Your task to perform on an android device: turn off location history Image 0: 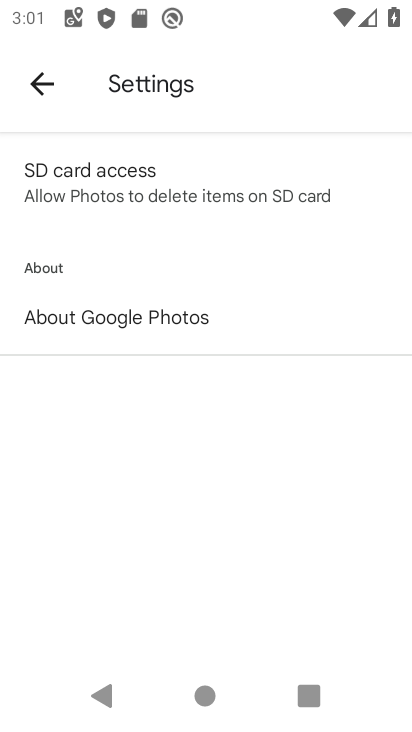
Step 0: press home button
Your task to perform on an android device: turn off location history Image 1: 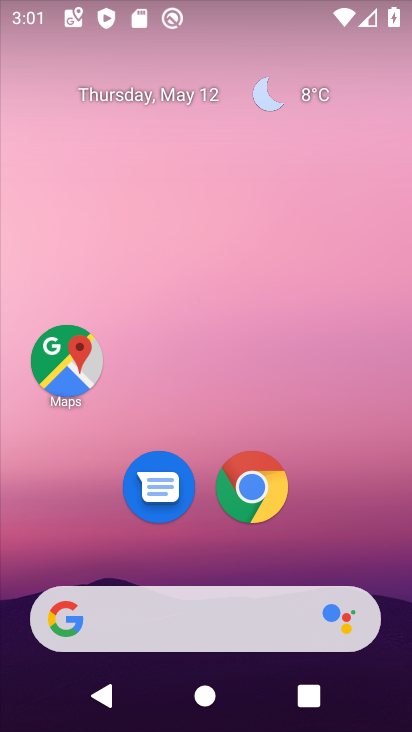
Step 1: drag from (323, 480) to (286, 6)
Your task to perform on an android device: turn off location history Image 2: 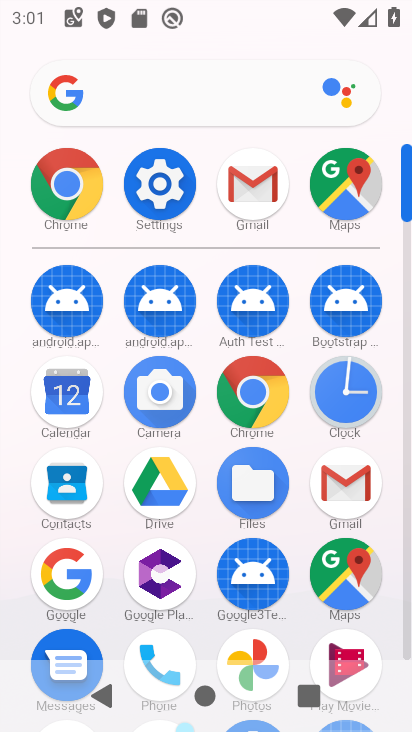
Step 2: click (174, 184)
Your task to perform on an android device: turn off location history Image 3: 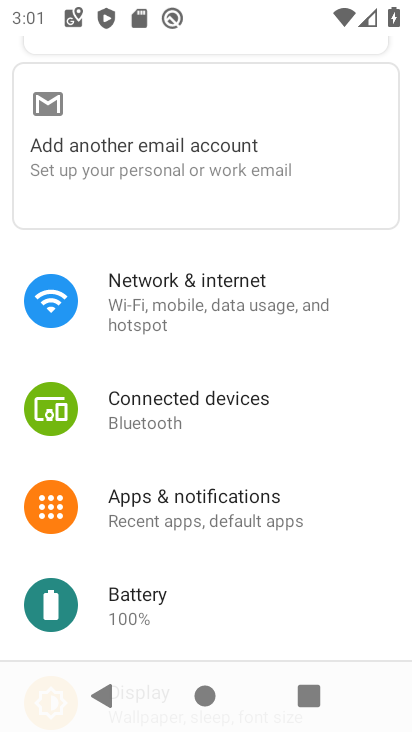
Step 3: drag from (230, 556) to (328, 0)
Your task to perform on an android device: turn off location history Image 4: 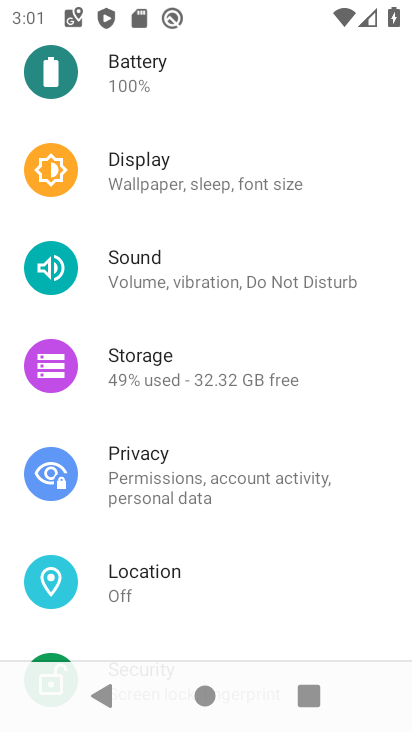
Step 4: click (149, 579)
Your task to perform on an android device: turn off location history Image 5: 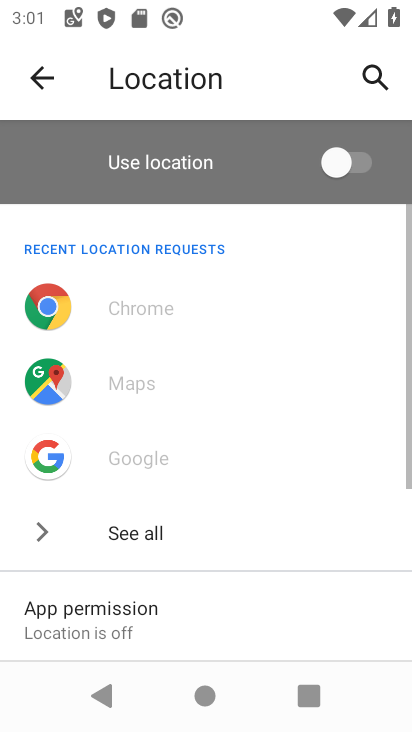
Step 5: drag from (161, 572) to (277, 2)
Your task to perform on an android device: turn off location history Image 6: 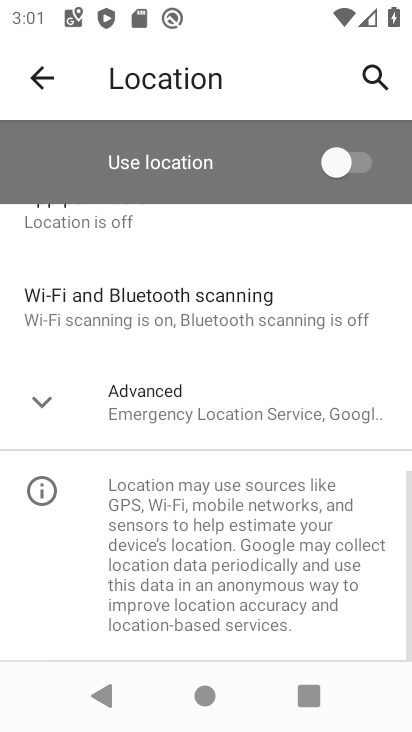
Step 6: drag from (187, 574) to (296, 155)
Your task to perform on an android device: turn off location history Image 7: 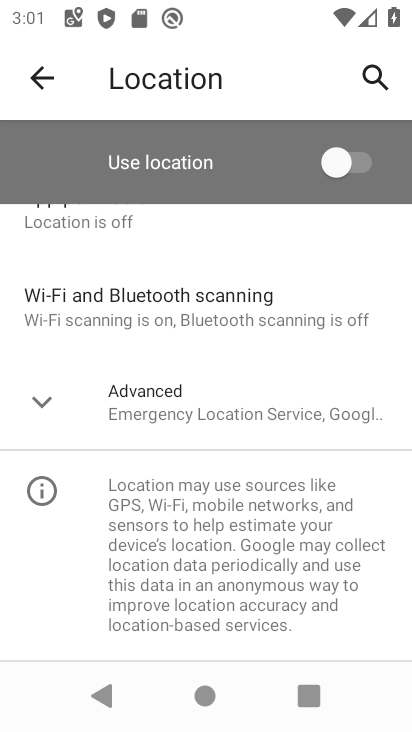
Step 7: click (214, 389)
Your task to perform on an android device: turn off location history Image 8: 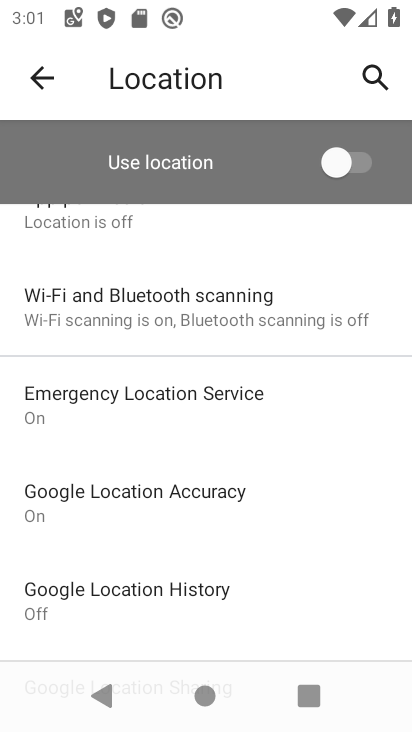
Step 8: drag from (212, 588) to (230, 303)
Your task to perform on an android device: turn off location history Image 9: 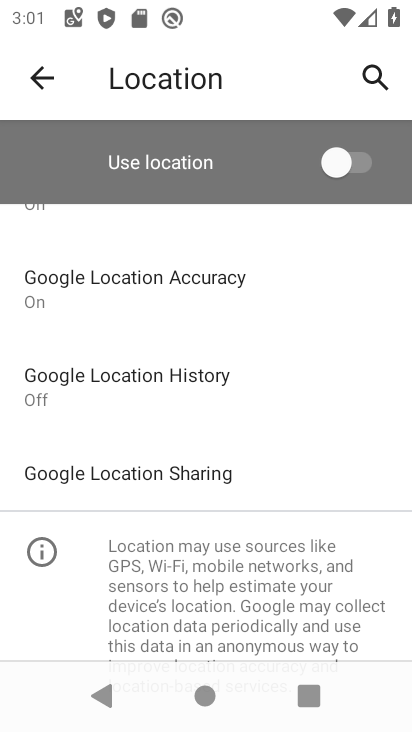
Step 9: click (144, 382)
Your task to perform on an android device: turn off location history Image 10: 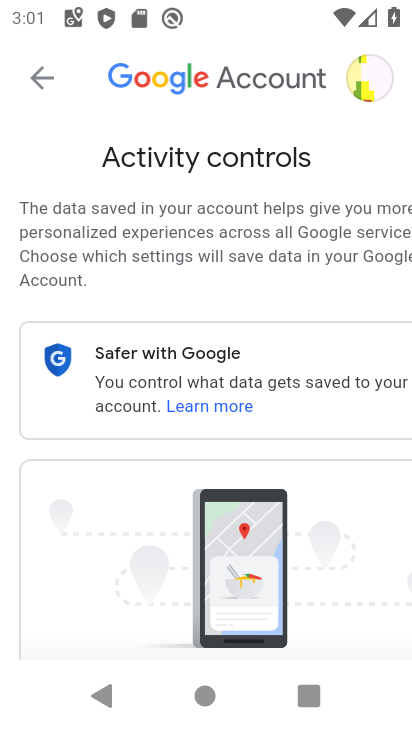
Step 10: drag from (238, 535) to (268, 80)
Your task to perform on an android device: turn off location history Image 11: 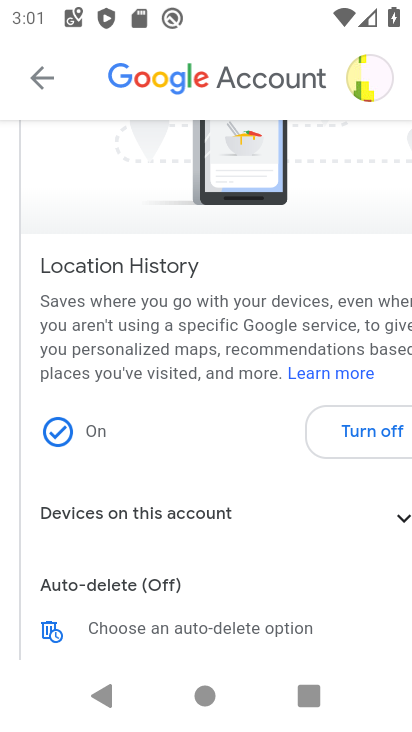
Step 11: click (374, 433)
Your task to perform on an android device: turn off location history Image 12: 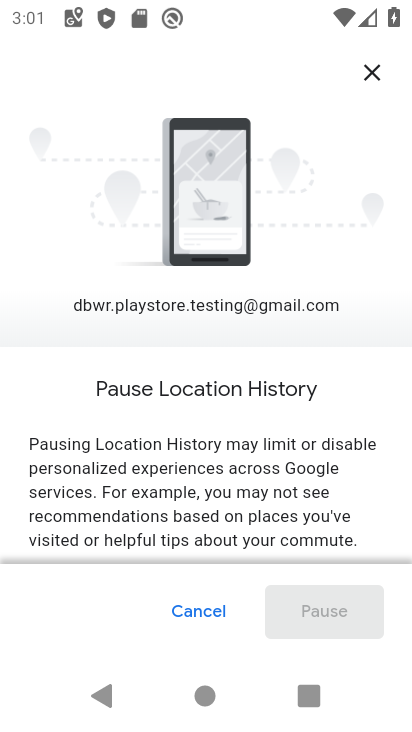
Step 12: drag from (217, 513) to (191, 0)
Your task to perform on an android device: turn off location history Image 13: 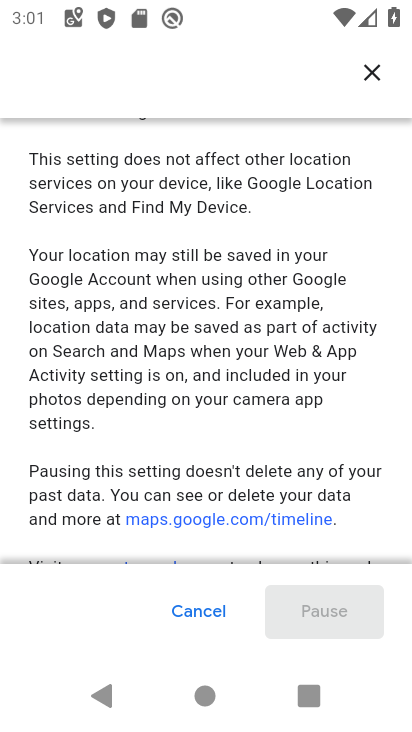
Step 13: drag from (243, 432) to (269, 14)
Your task to perform on an android device: turn off location history Image 14: 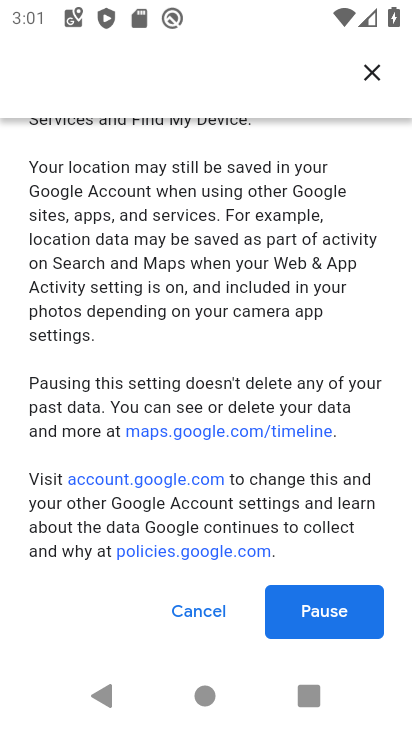
Step 14: click (317, 613)
Your task to perform on an android device: turn off location history Image 15: 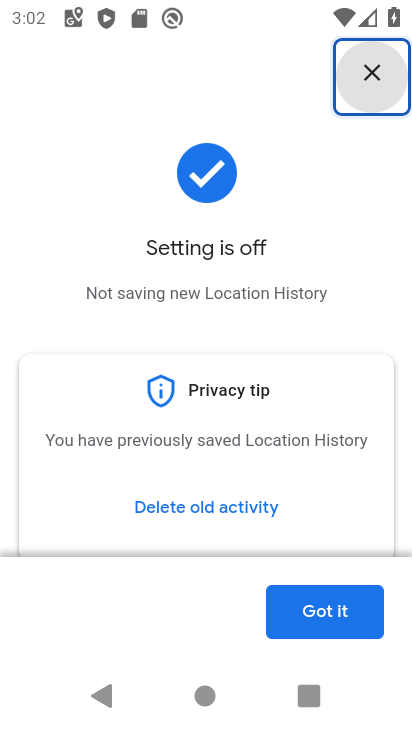
Step 15: task complete